Your task to perform on an android device: turn on showing notifications on the lock screen Image 0: 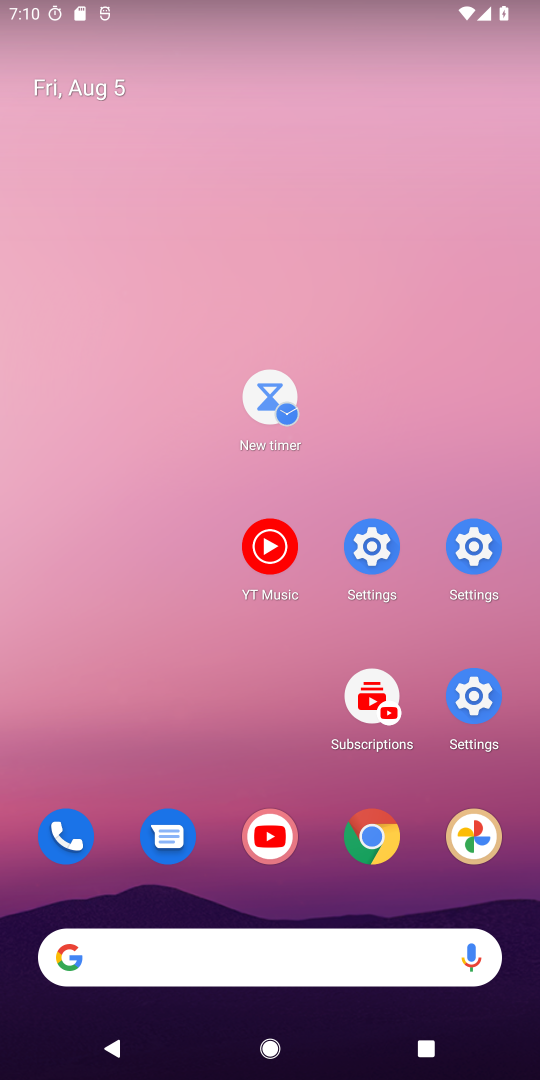
Step 0: drag from (341, 602) to (322, 509)
Your task to perform on an android device: turn on showing notifications on the lock screen Image 1: 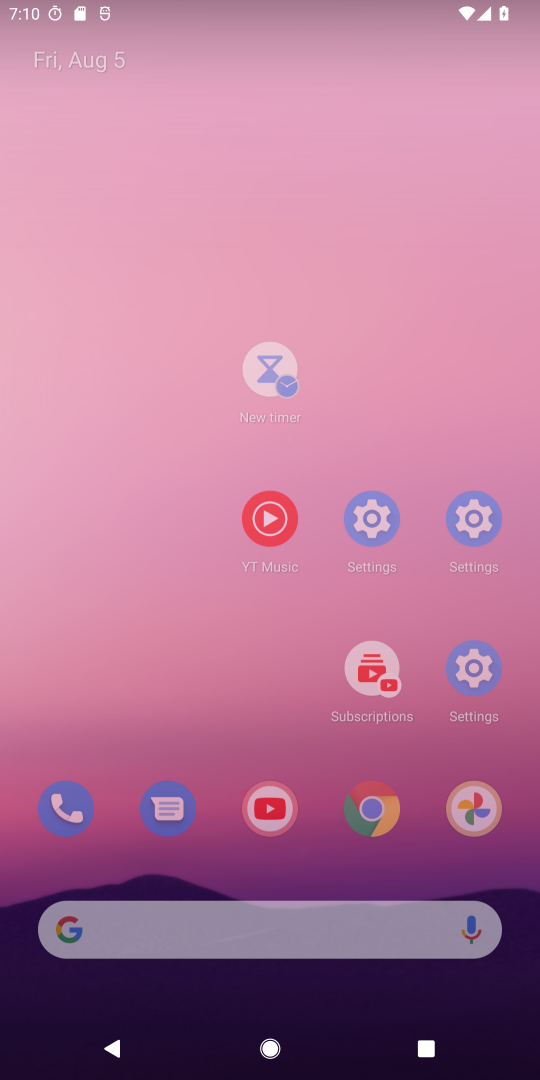
Step 1: click (206, 463)
Your task to perform on an android device: turn on showing notifications on the lock screen Image 2: 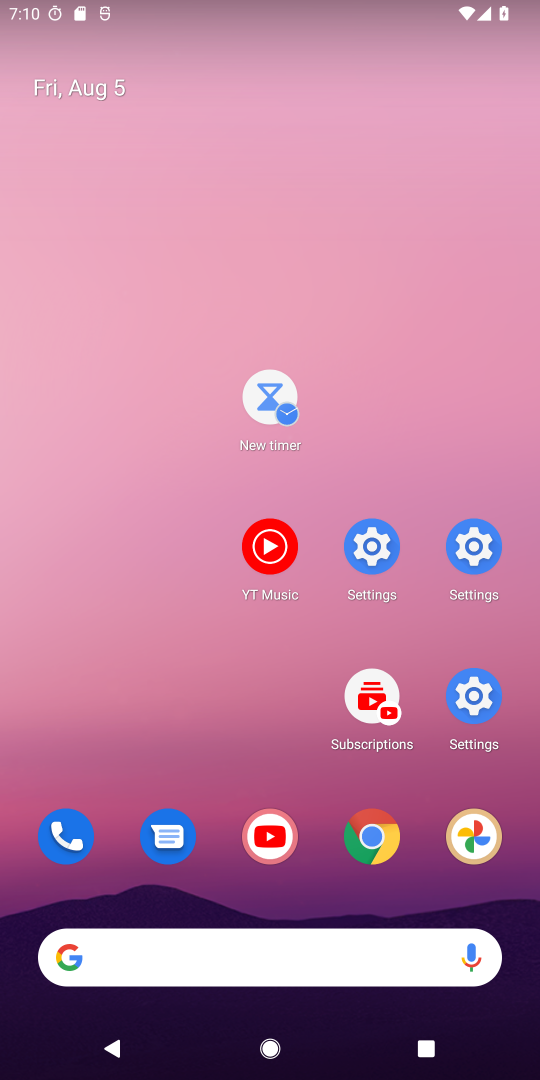
Step 2: drag from (285, 597) to (233, 300)
Your task to perform on an android device: turn on showing notifications on the lock screen Image 3: 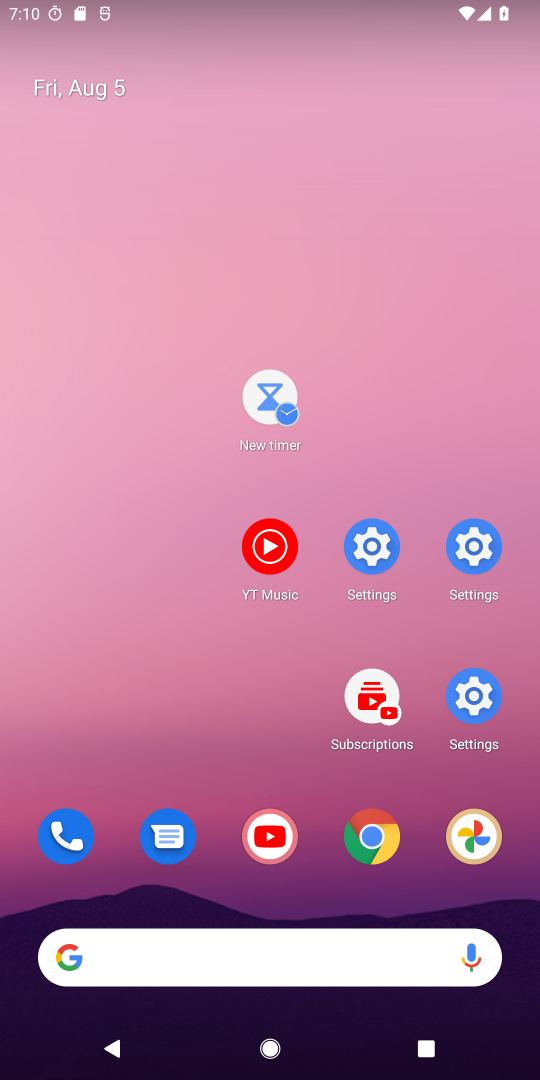
Step 3: click (187, 233)
Your task to perform on an android device: turn on showing notifications on the lock screen Image 4: 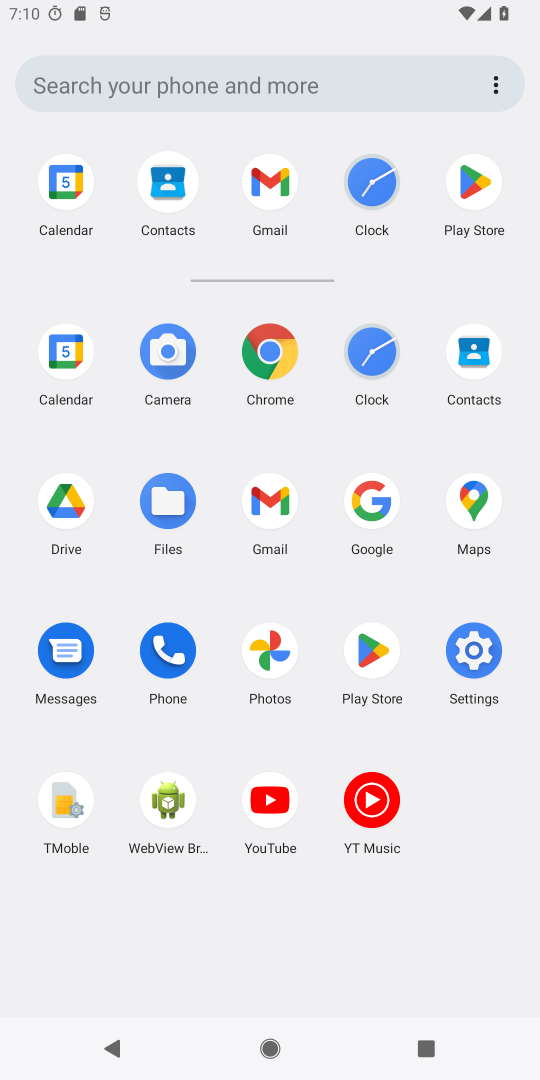
Step 4: drag from (319, 639) to (155, 208)
Your task to perform on an android device: turn on showing notifications on the lock screen Image 5: 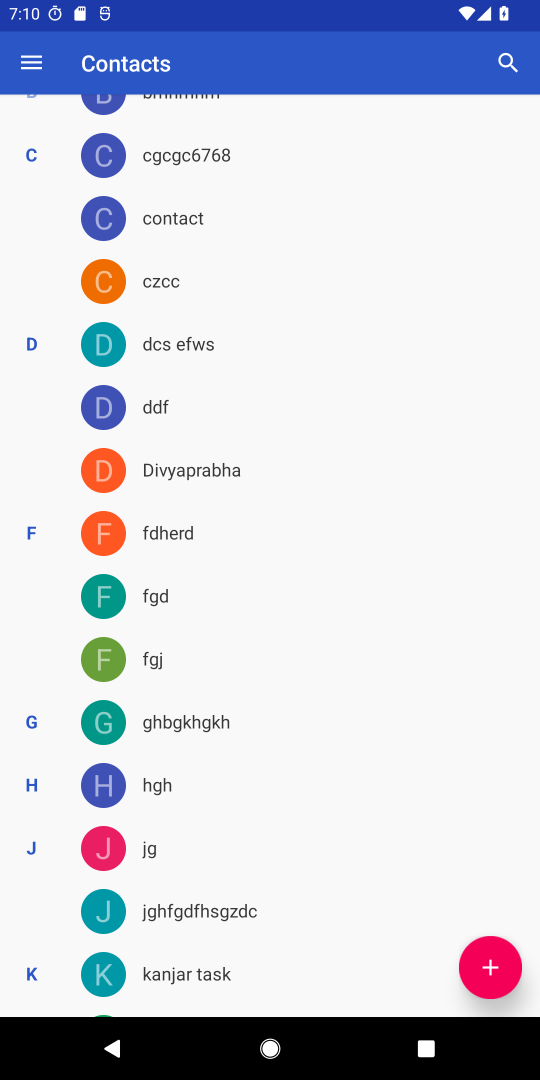
Step 5: press back button
Your task to perform on an android device: turn on showing notifications on the lock screen Image 6: 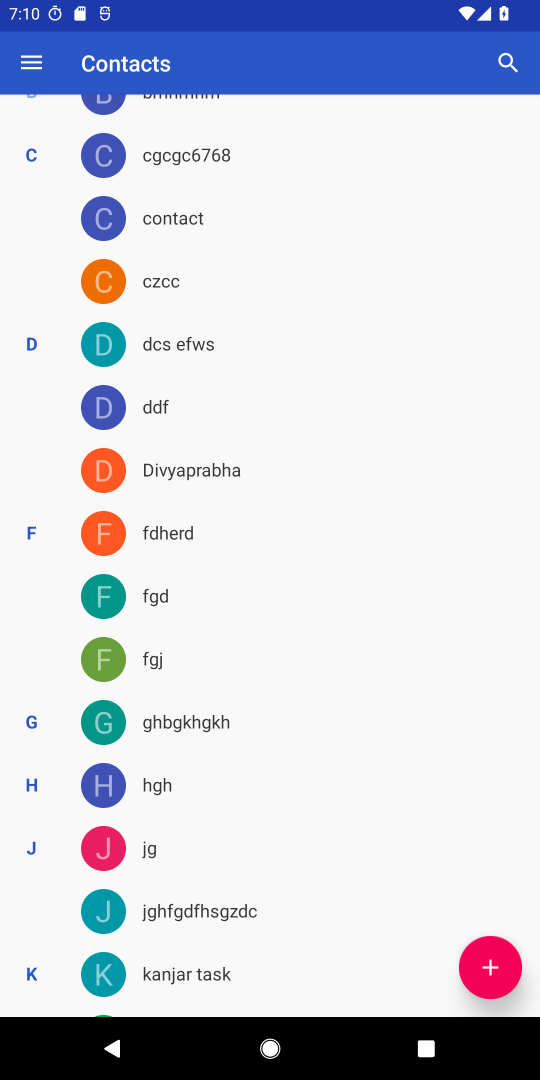
Step 6: press back button
Your task to perform on an android device: turn on showing notifications on the lock screen Image 7: 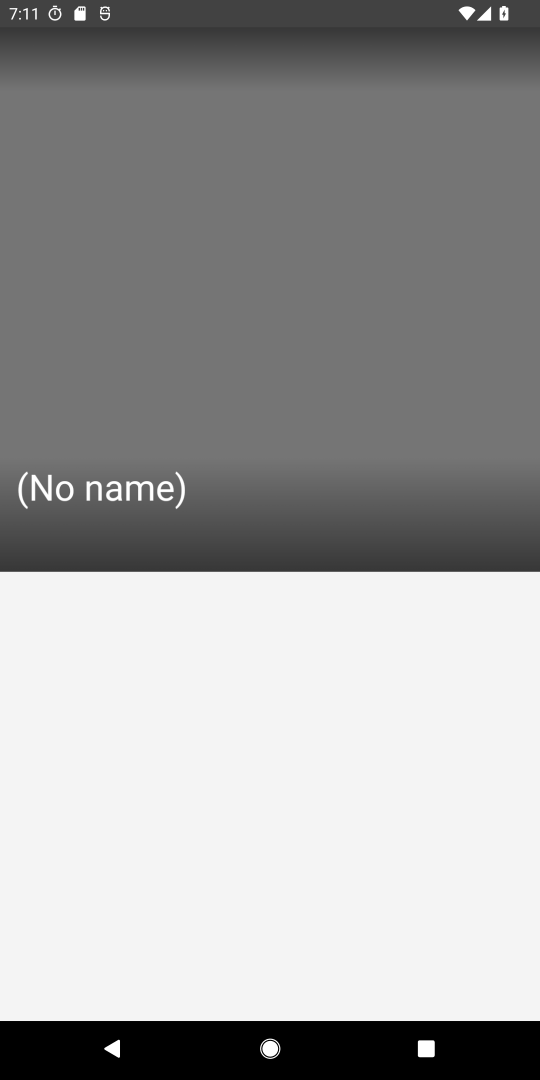
Step 7: press back button
Your task to perform on an android device: turn on showing notifications on the lock screen Image 8: 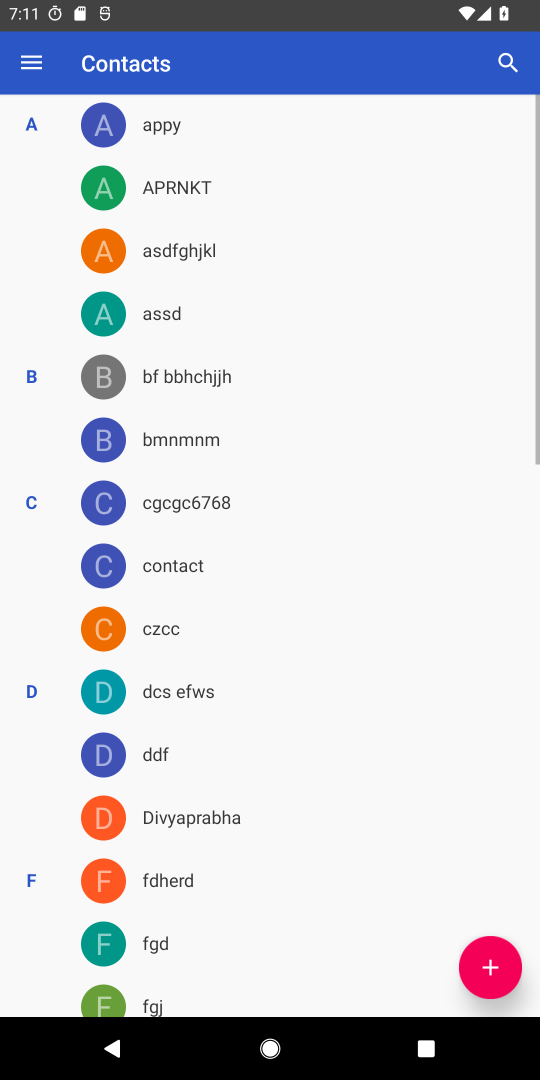
Step 8: press back button
Your task to perform on an android device: turn on showing notifications on the lock screen Image 9: 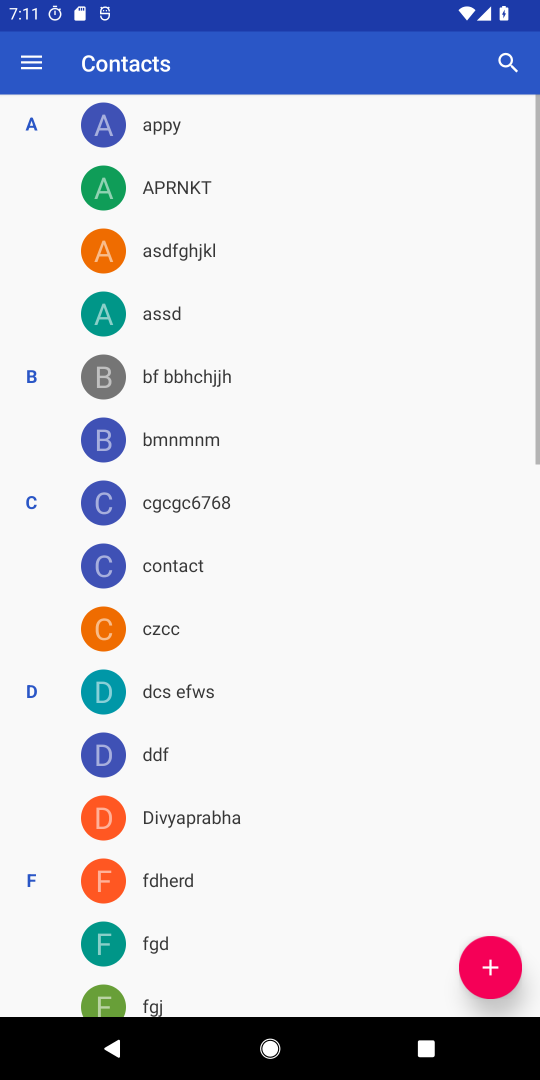
Step 9: press back button
Your task to perform on an android device: turn on showing notifications on the lock screen Image 10: 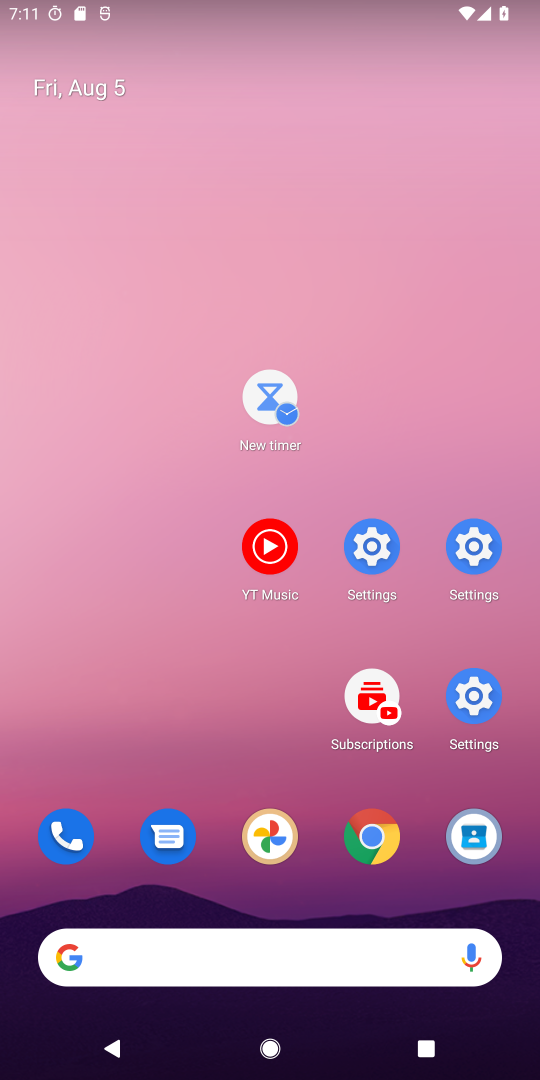
Step 10: press home button
Your task to perform on an android device: turn on showing notifications on the lock screen Image 11: 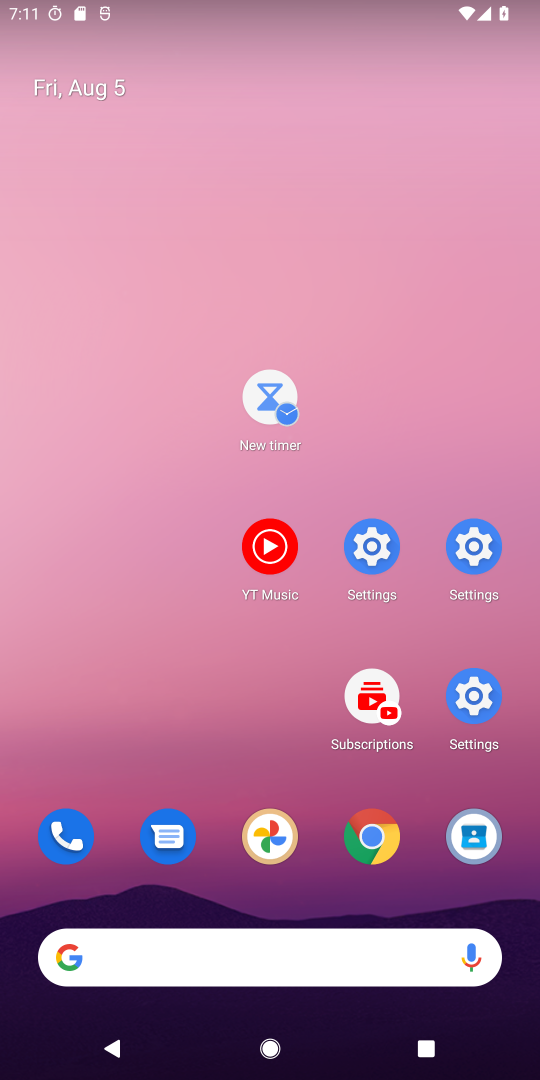
Step 11: press home button
Your task to perform on an android device: turn on showing notifications on the lock screen Image 12: 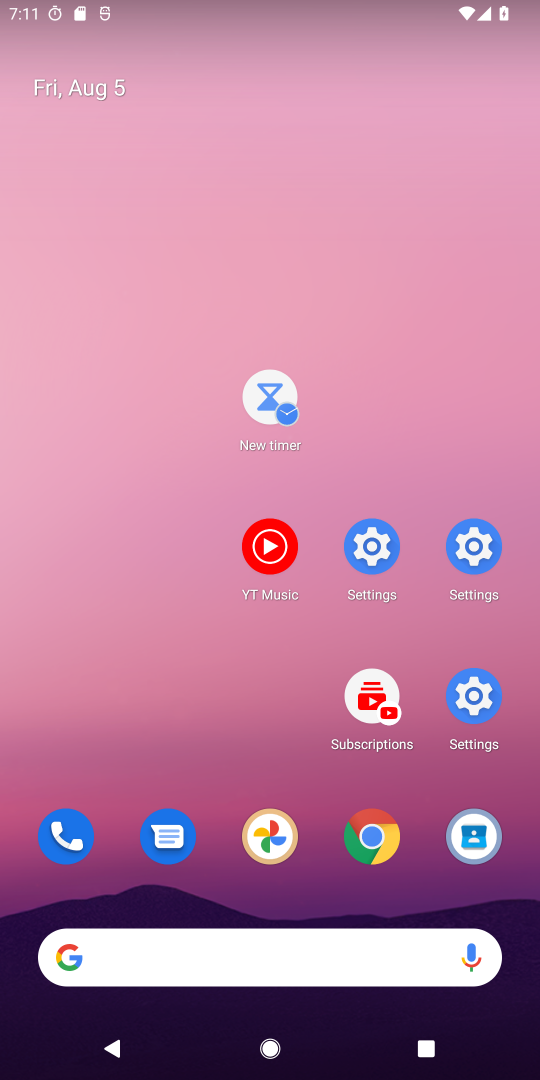
Step 12: drag from (247, 850) to (118, 153)
Your task to perform on an android device: turn on showing notifications on the lock screen Image 13: 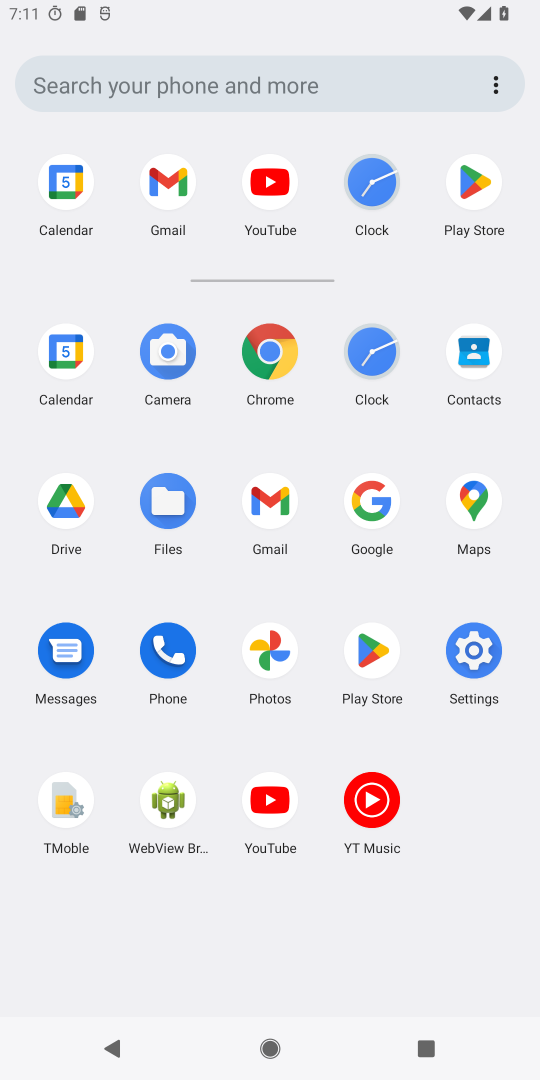
Step 13: drag from (255, 757) to (181, 363)
Your task to perform on an android device: turn on showing notifications on the lock screen Image 14: 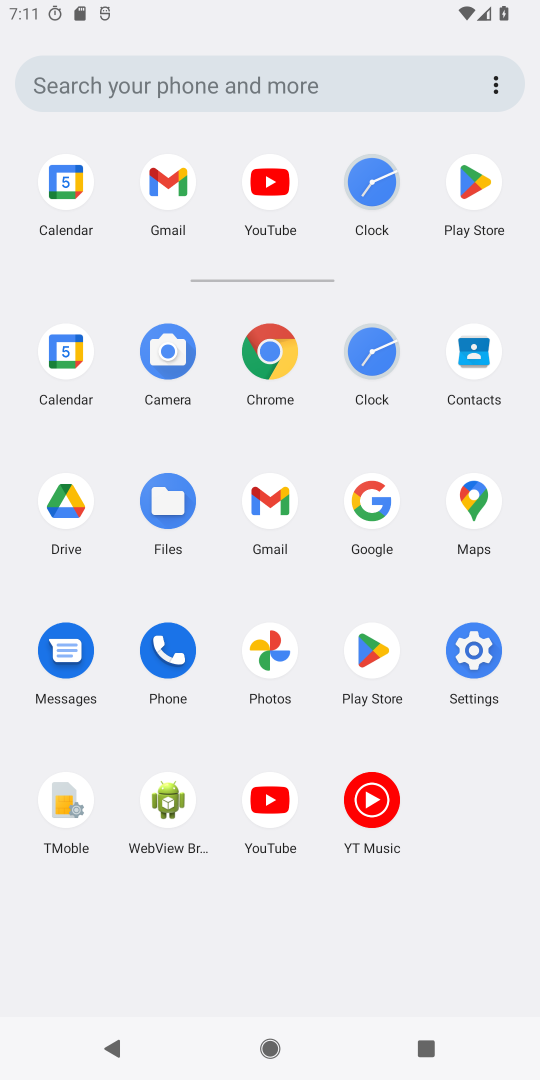
Step 14: click (468, 646)
Your task to perform on an android device: turn on showing notifications on the lock screen Image 15: 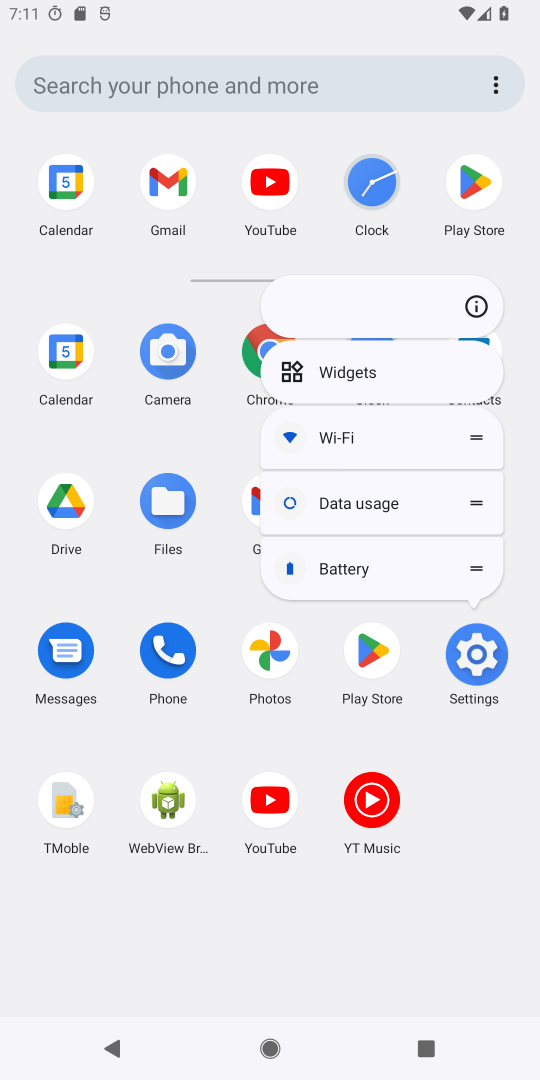
Step 15: click (471, 650)
Your task to perform on an android device: turn on showing notifications on the lock screen Image 16: 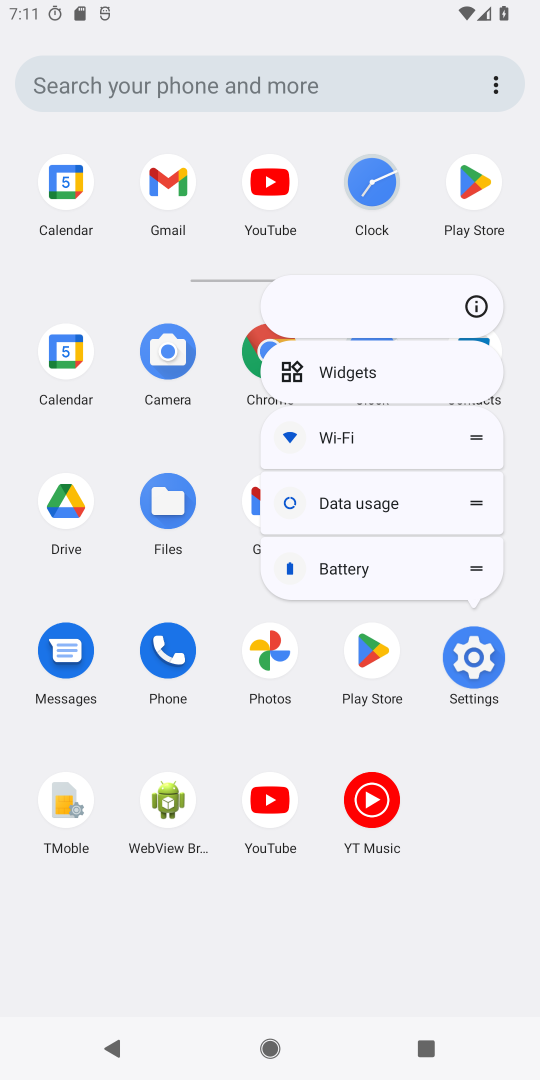
Step 16: click (471, 657)
Your task to perform on an android device: turn on showing notifications on the lock screen Image 17: 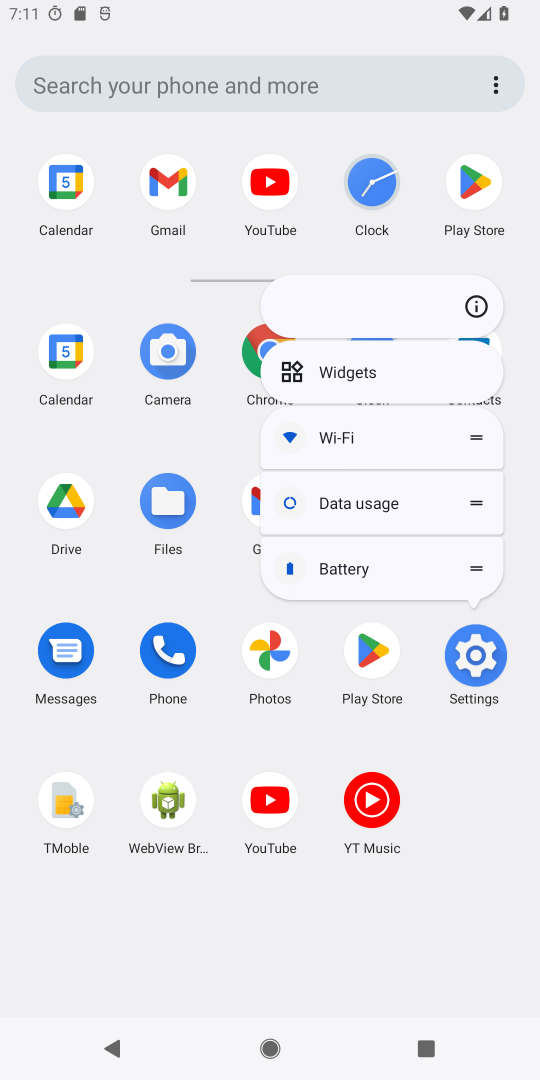
Step 17: click (473, 662)
Your task to perform on an android device: turn on showing notifications on the lock screen Image 18: 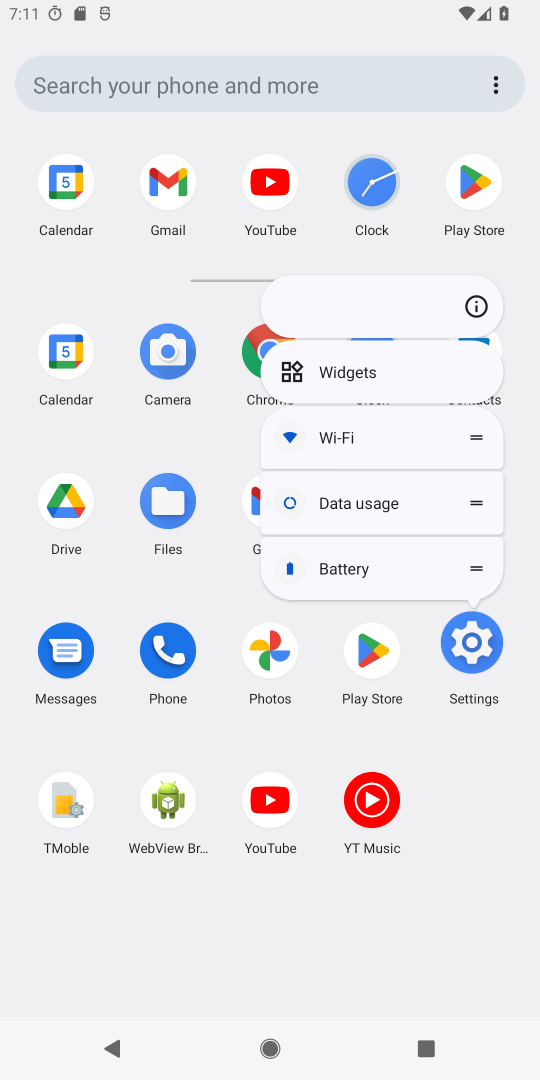
Step 18: click (476, 638)
Your task to perform on an android device: turn on showing notifications on the lock screen Image 19: 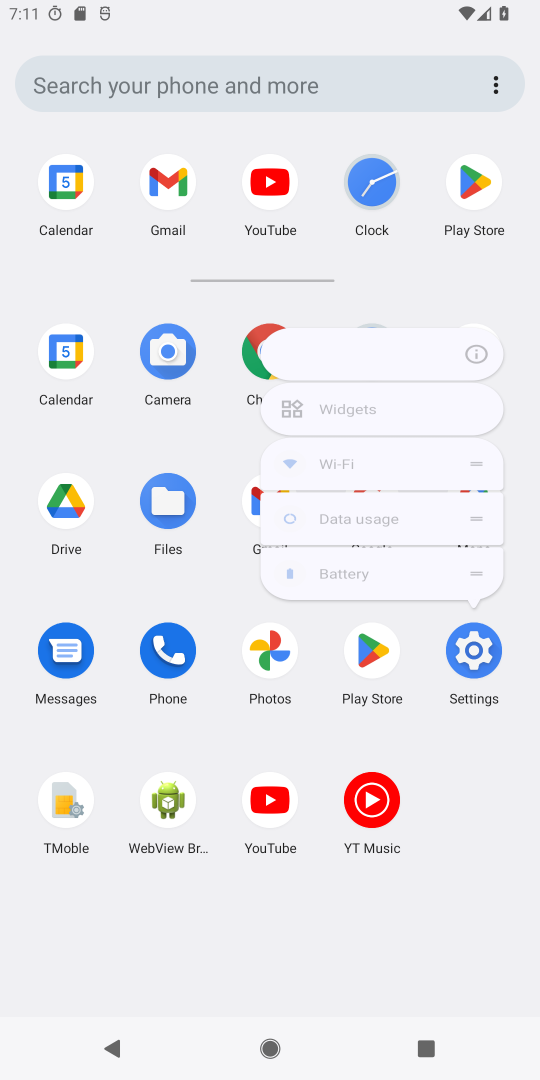
Step 19: click (472, 637)
Your task to perform on an android device: turn on showing notifications on the lock screen Image 20: 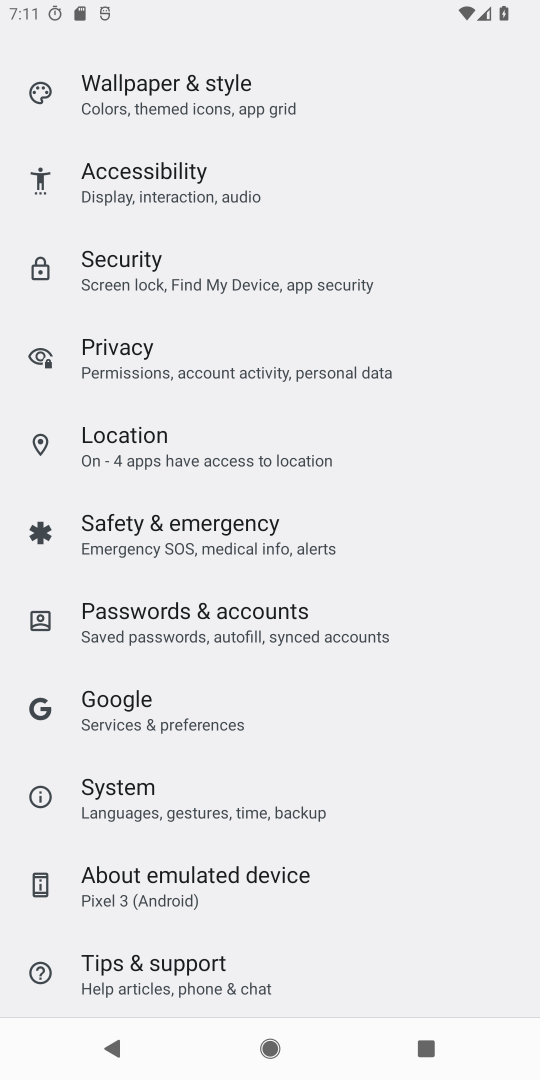
Step 20: press back button
Your task to perform on an android device: turn on showing notifications on the lock screen Image 21: 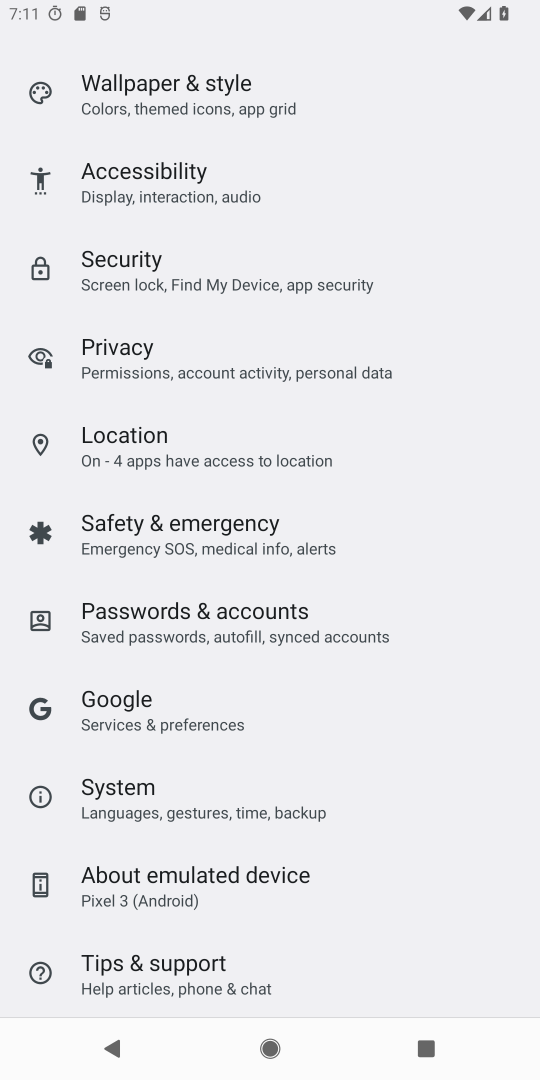
Step 21: press back button
Your task to perform on an android device: turn on showing notifications on the lock screen Image 22: 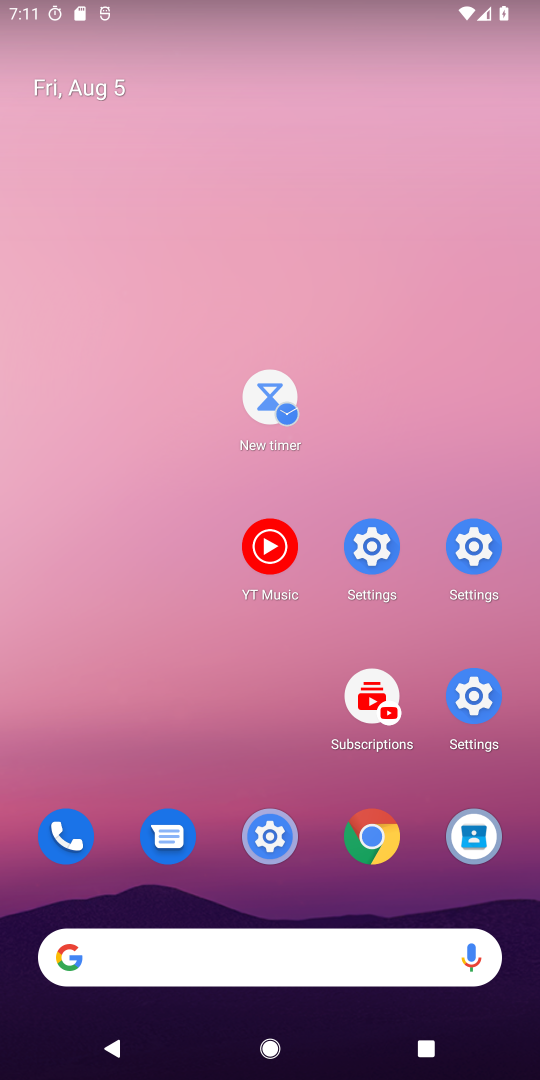
Step 22: drag from (363, 847) to (257, 190)
Your task to perform on an android device: turn on showing notifications on the lock screen Image 23: 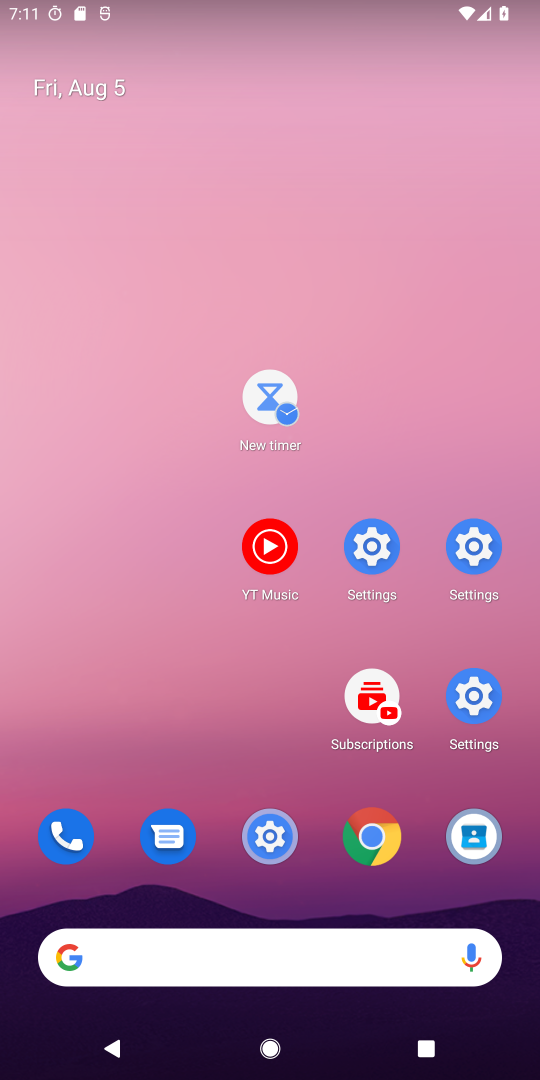
Step 23: drag from (246, 367) to (225, 236)
Your task to perform on an android device: turn on showing notifications on the lock screen Image 24: 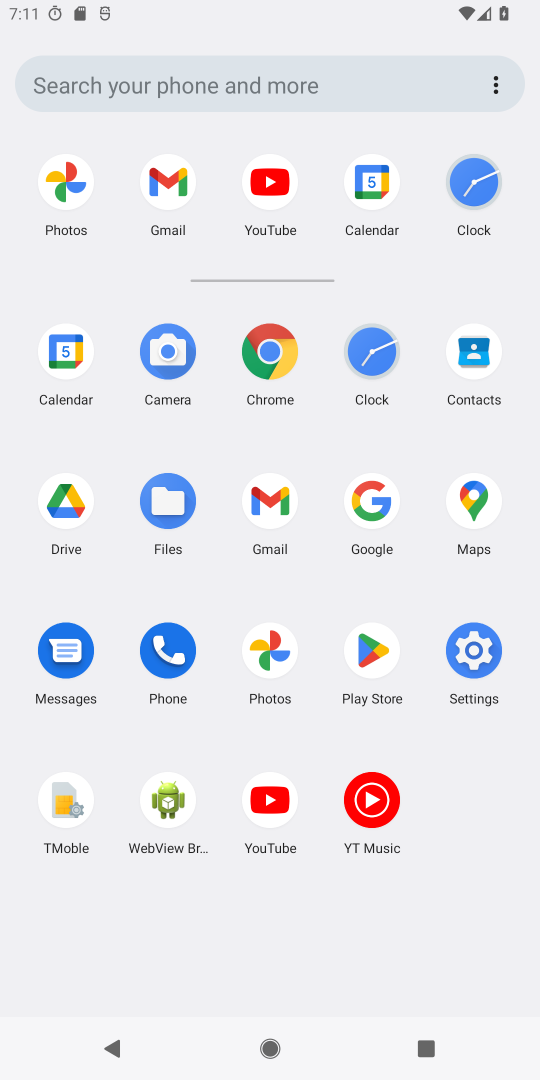
Step 24: click (474, 651)
Your task to perform on an android device: turn on showing notifications on the lock screen Image 25: 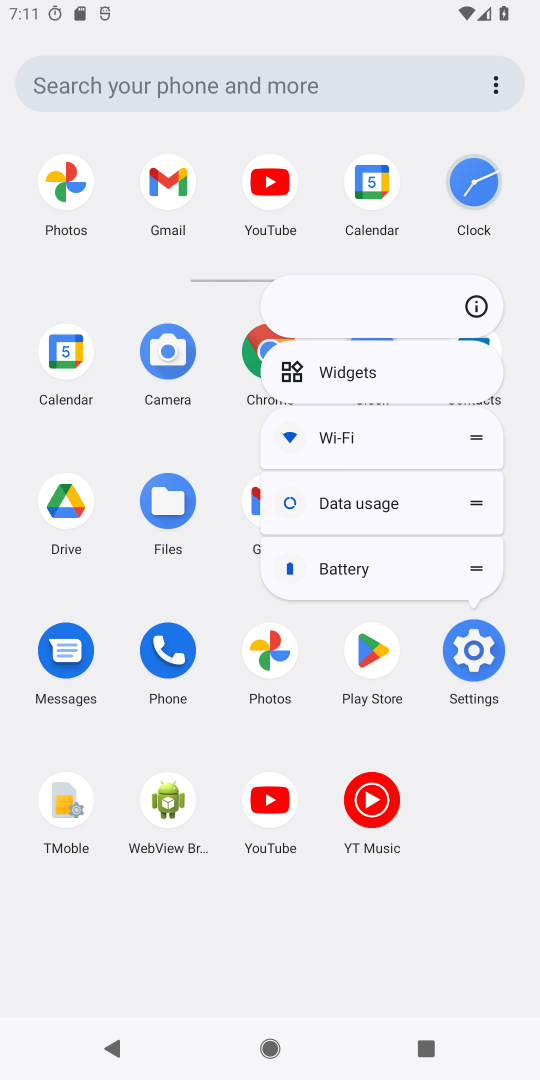
Step 25: click (474, 651)
Your task to perform on an android device: turn on showing notifications on the lock screen Image 26: 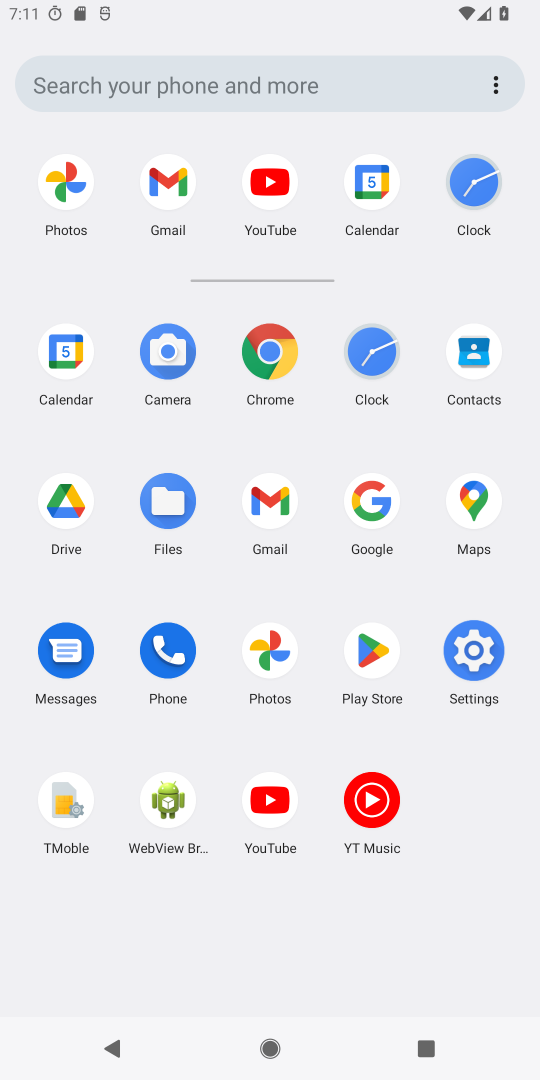
Step 26: click (474, 651)
Your task to perform on an android device: turn on showing notifications on the lock screen Image 27: 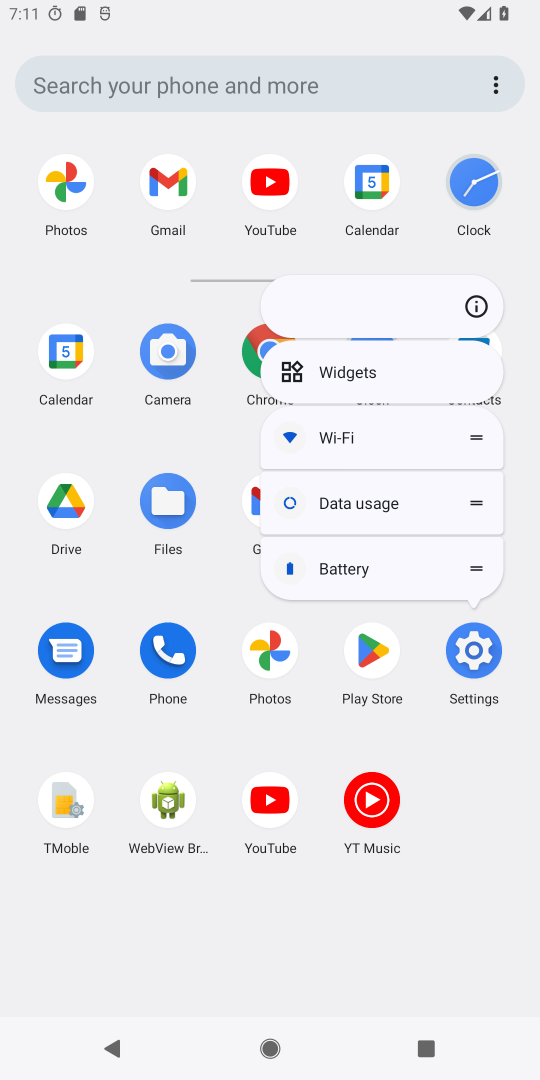
Step 27: click (474, 651)
Your task to perform on an android device: turn on showing notifications on the lock screen Image 28: 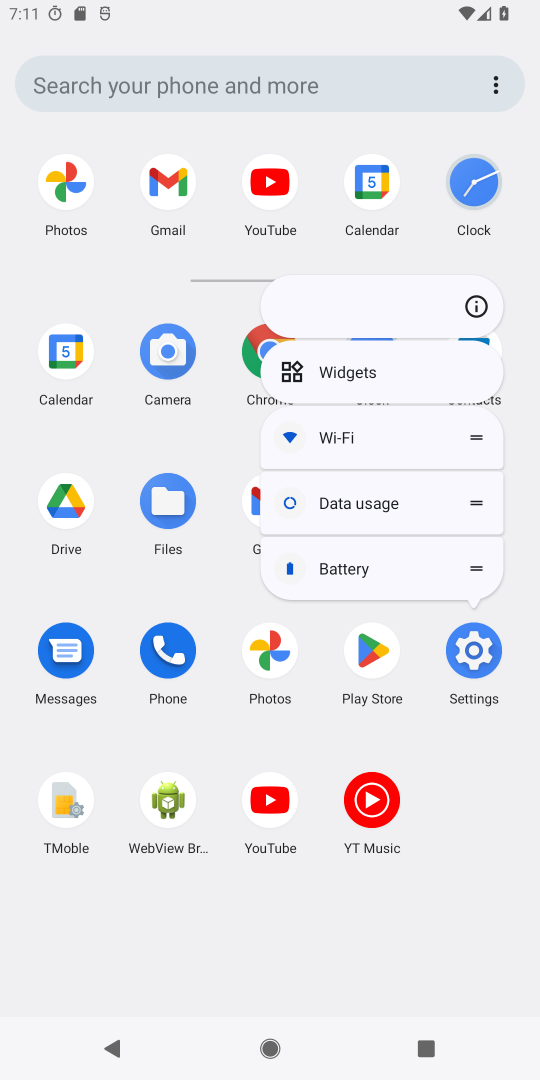
Step 28: click (474, 651)
Your task to perform on an android device: turn on showing notifications on the lock screen Image 29: 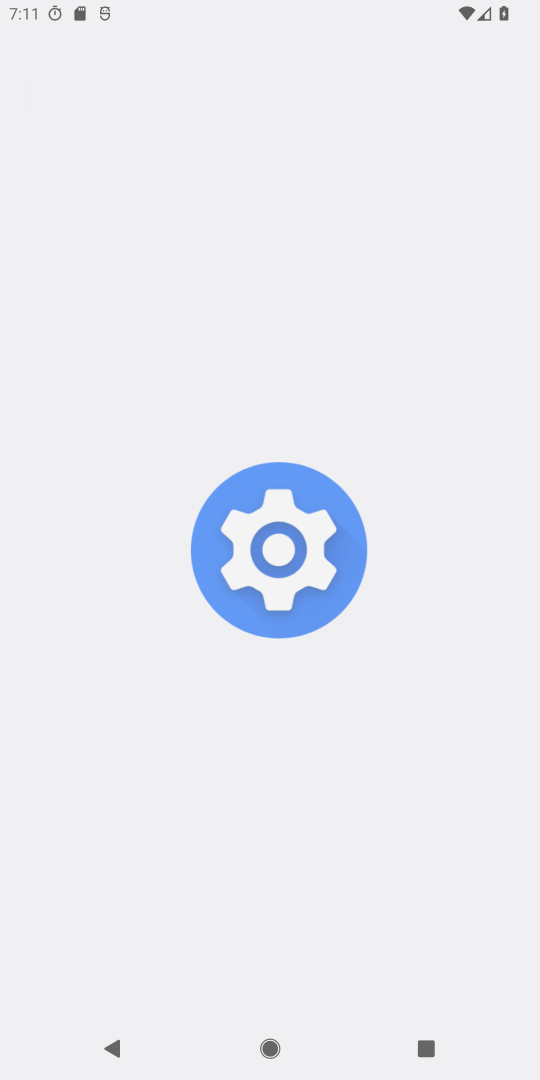
Step 29: click (474, 651)
Your task to perform on an android device: turn on showing notifications on the lock screen Image 30: 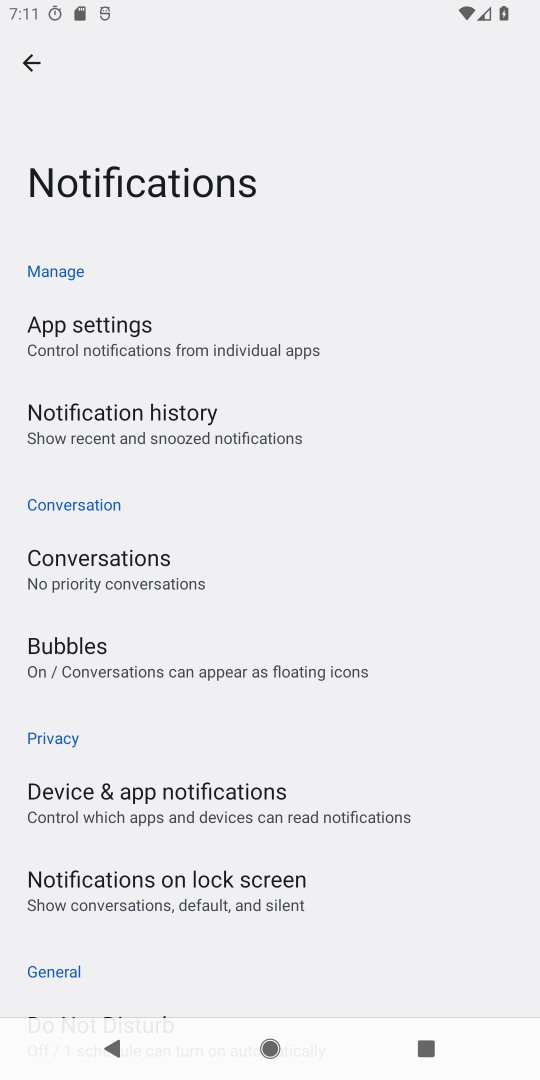
Step 30: click (190, 792)
Your task to perform on an android device: turn on showing notifications on the lock screen Image 31: 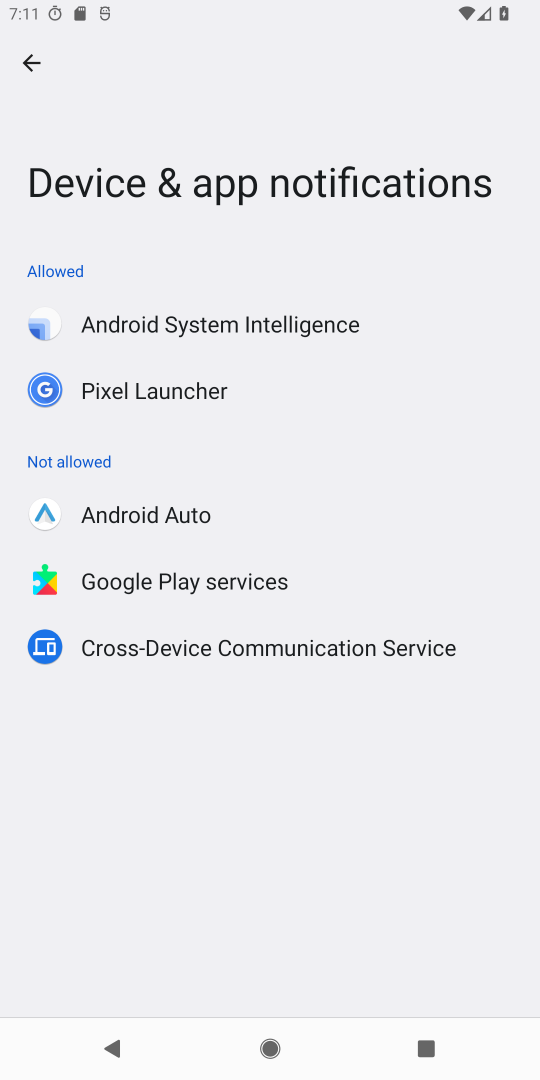
Step 31: click (38, 66)
Your task to perform on an android device: turn on showing notifications on the lock screen Image 32: 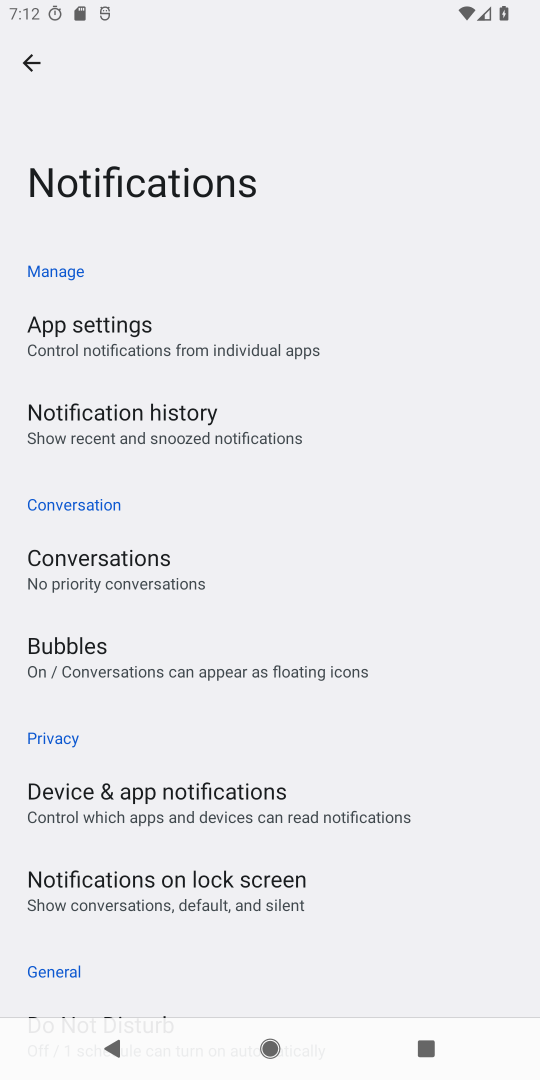
Step 32: click (195, 904)
Your task to perform on an android device: turn on showing notifications on the lock screen Image 33: 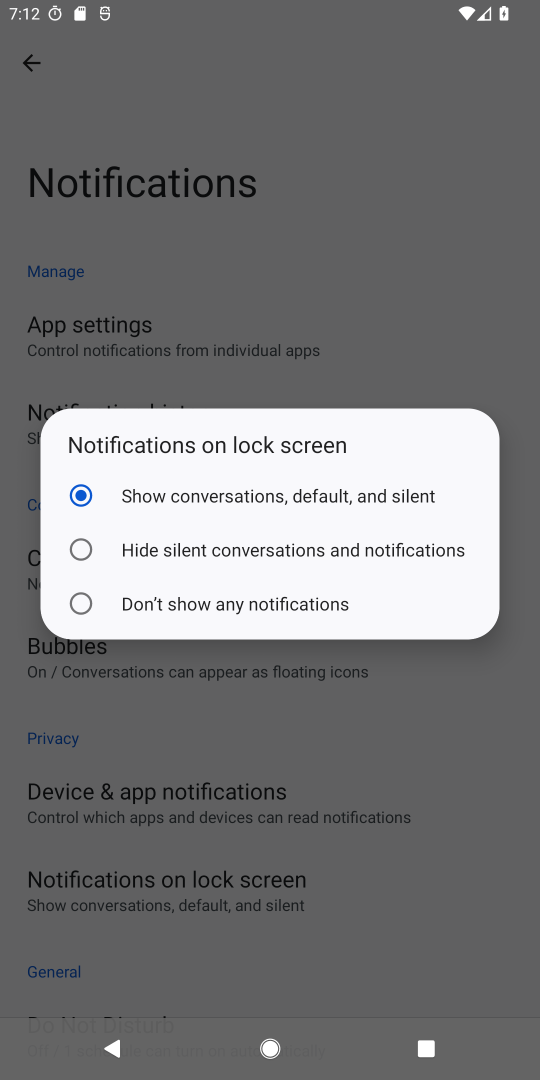
Step 33: click (83, 496)
Your task to perform on an android device: turn on showing notifications on the lock screen Image 34: 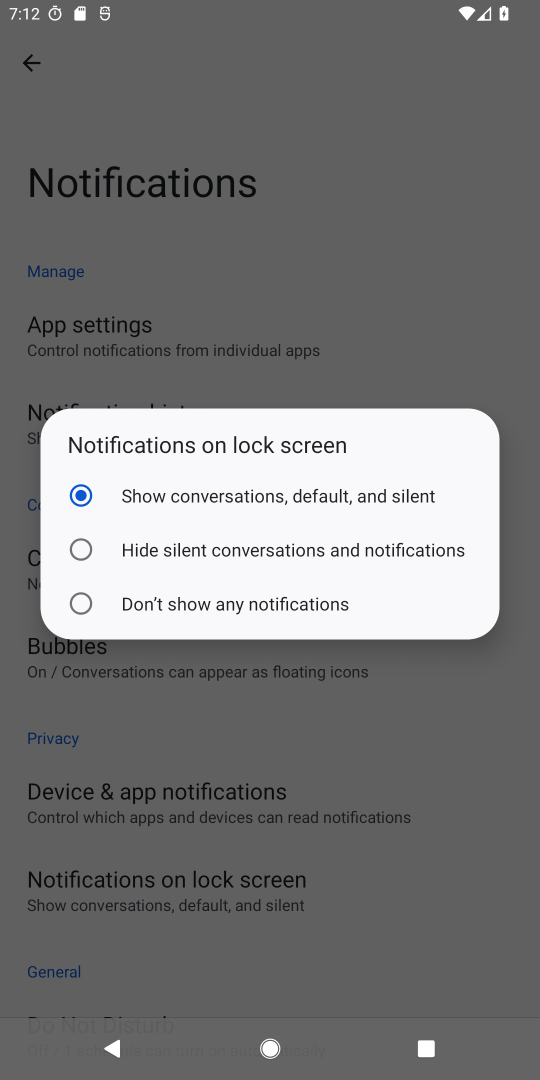
Step 34: click (83, 496)
Your task to perform on an android device: turn on showing notifications on the lock screen Image 35: 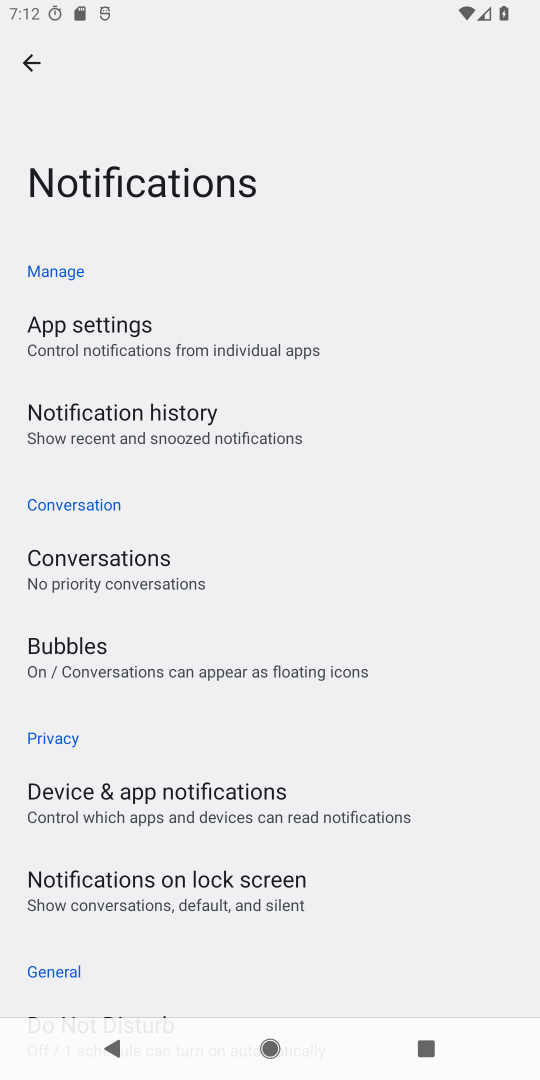
Step 35: task complete